Your task to perform on an android device: find snoozed emails in the gmail app Image 0: 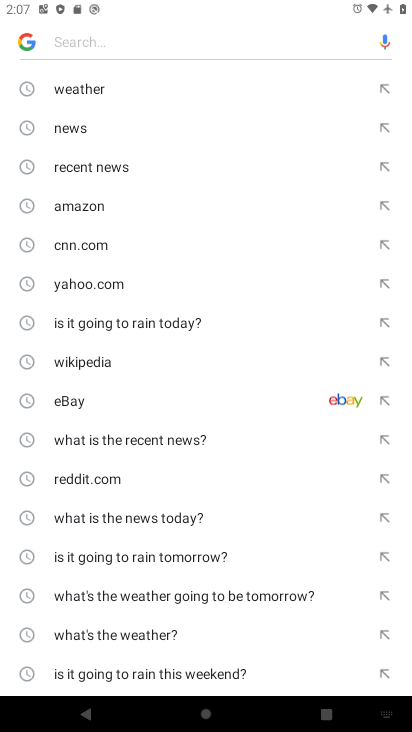
Step 0: press home button
Your task to perform on an android device: find snoozed emails in the gmail app Image 1: 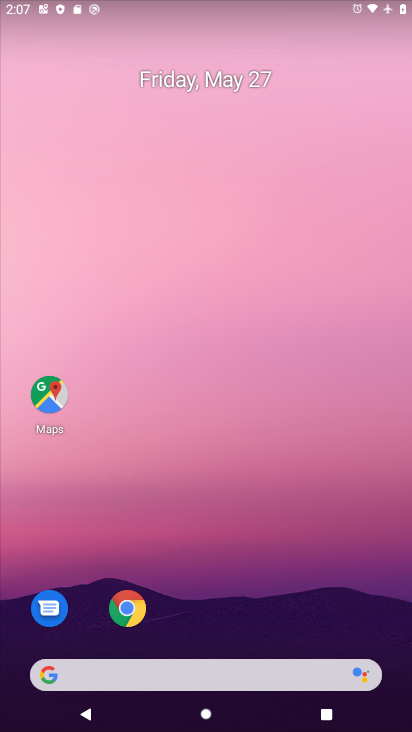
Step 1: drag from (142, 680) to (267, 54)
Your task to perform on an android device: find snoozed emails in the gmail app Image 2: 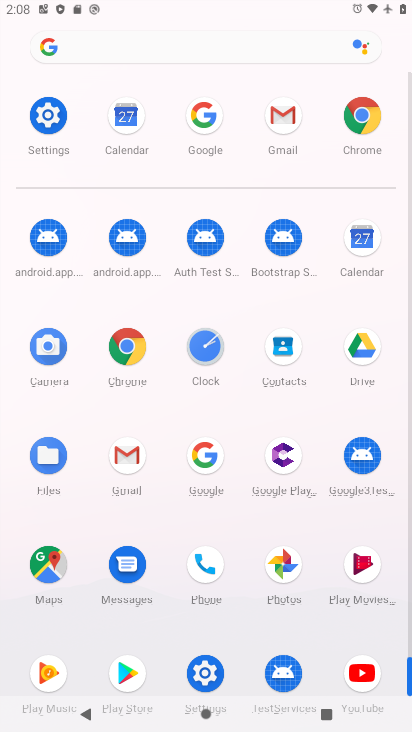
Step 2: click (285, 123)
Your task to perform on an android device: find snoozed emails in the gmail app Image 3: 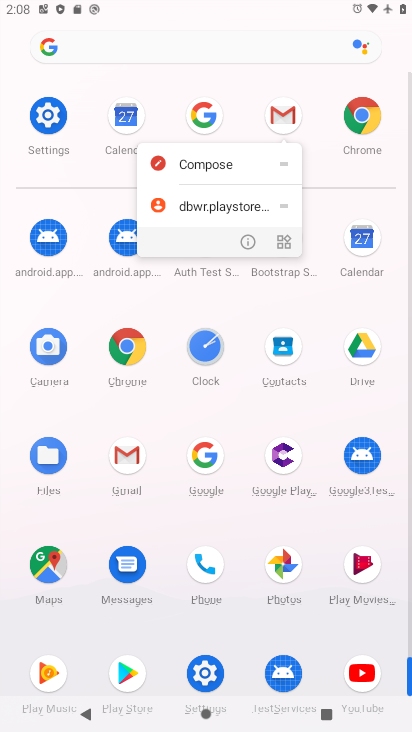
Step 3: click (285, 123)
Your task to perform on an android device: find snoozed emails in the gmail app Image 4: 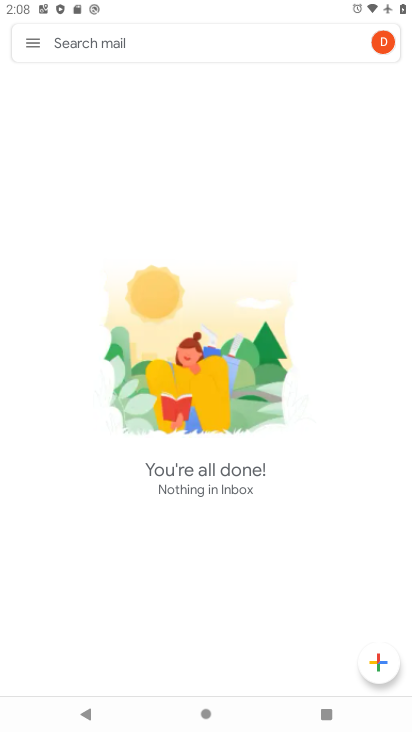
Step 4: click (30, 39)
Your task to perform on an android device: find snoozed emails in the gmail app Image 5: 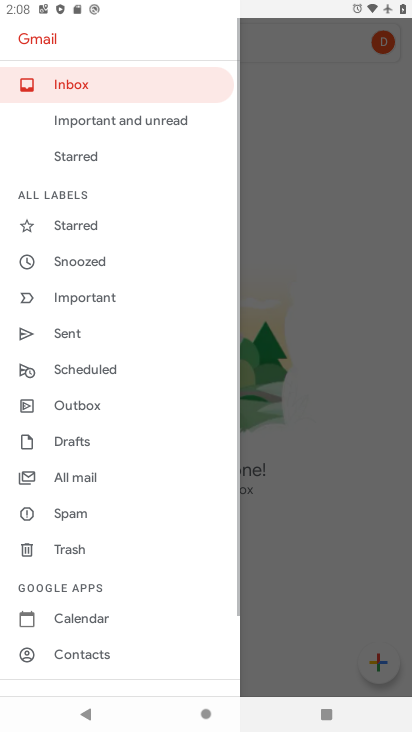
Step 5: click (92, 264)
Your task to perform on an android device: find snoozed emails in the gmail app Image 6: 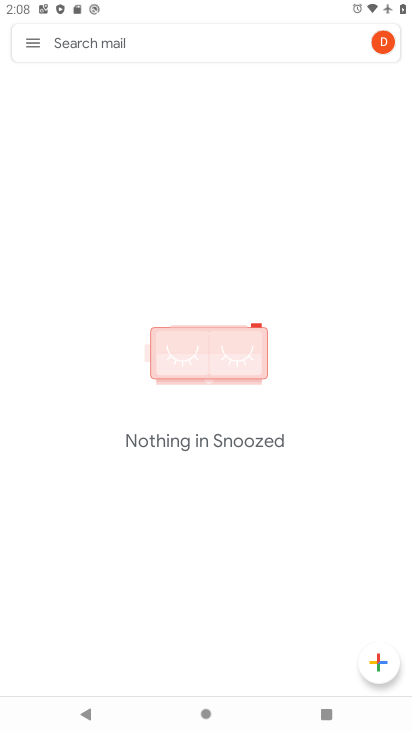
Step 6: task complete